Your task to perform on an android device: Open CNN.com Image 0: 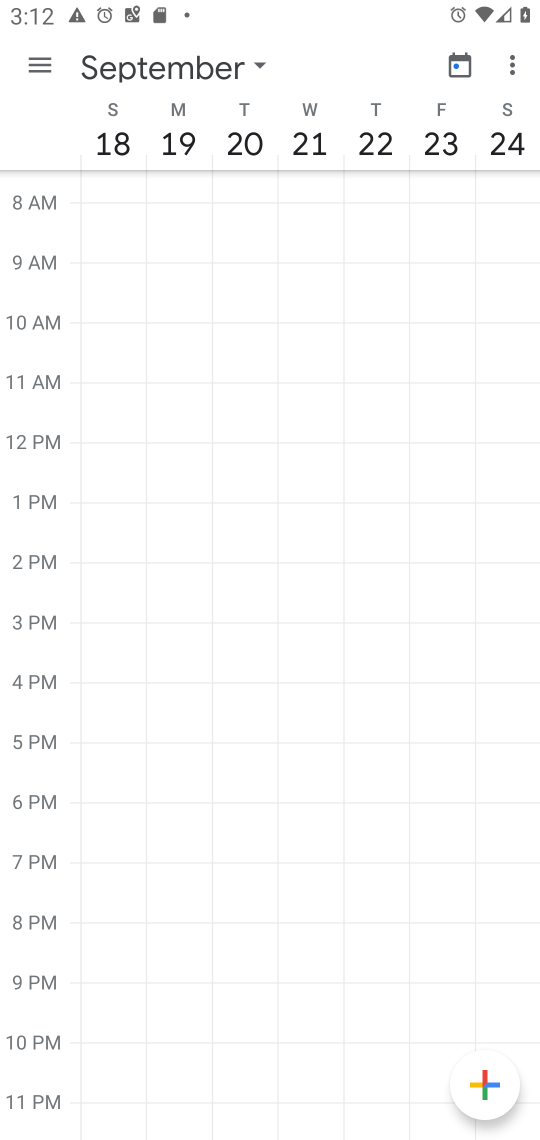
Step 0: press home button
Your task to perform on an android device: Open CNN.com Image 1: 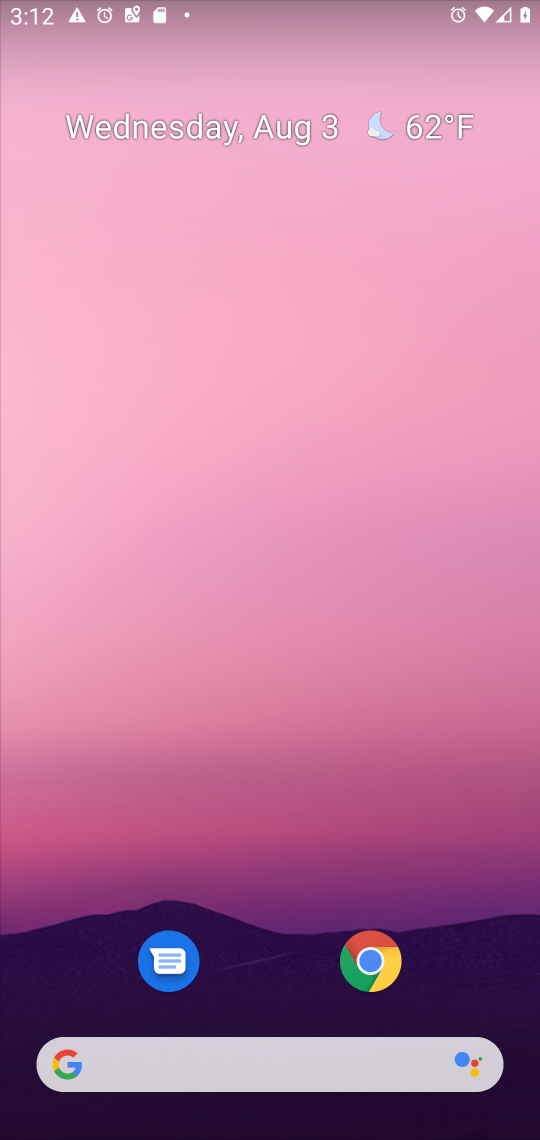
Step 1: click (379, 967)
Your task to perform on an android device: Open CNN.com Image 2: 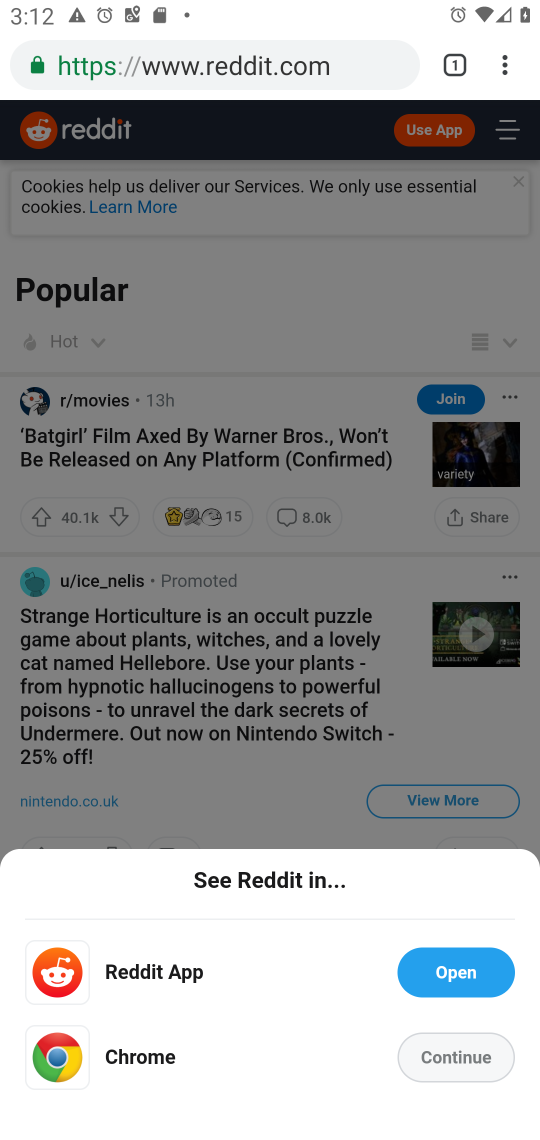
Step 2: click (312, 57)
Your task to perform on an android device: Open CNN.com Image 3: 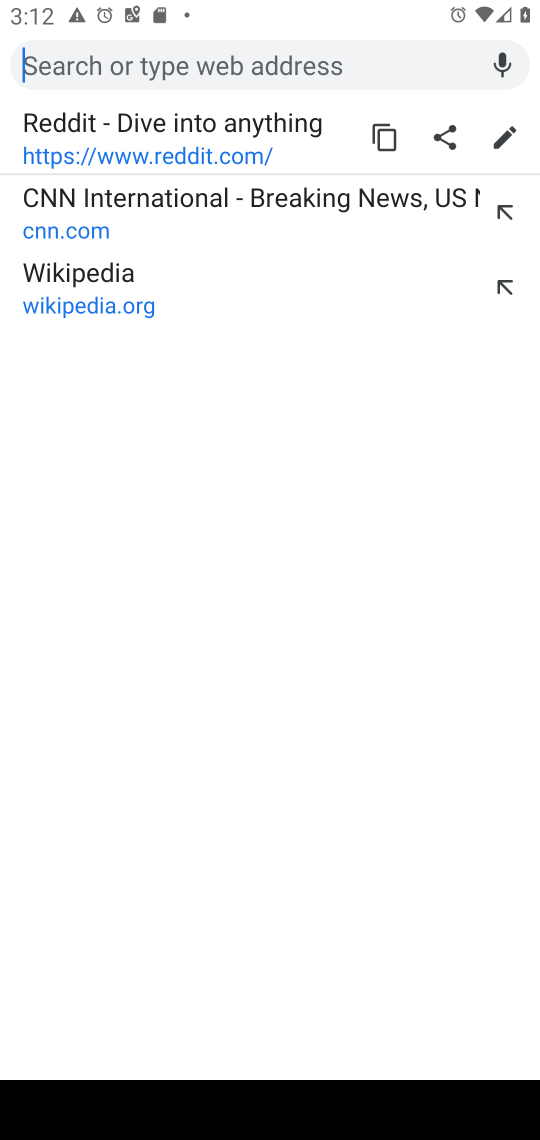
Step 3: click (143, 211)
Your task to perform on an android device: Open CNN.com Image 4: 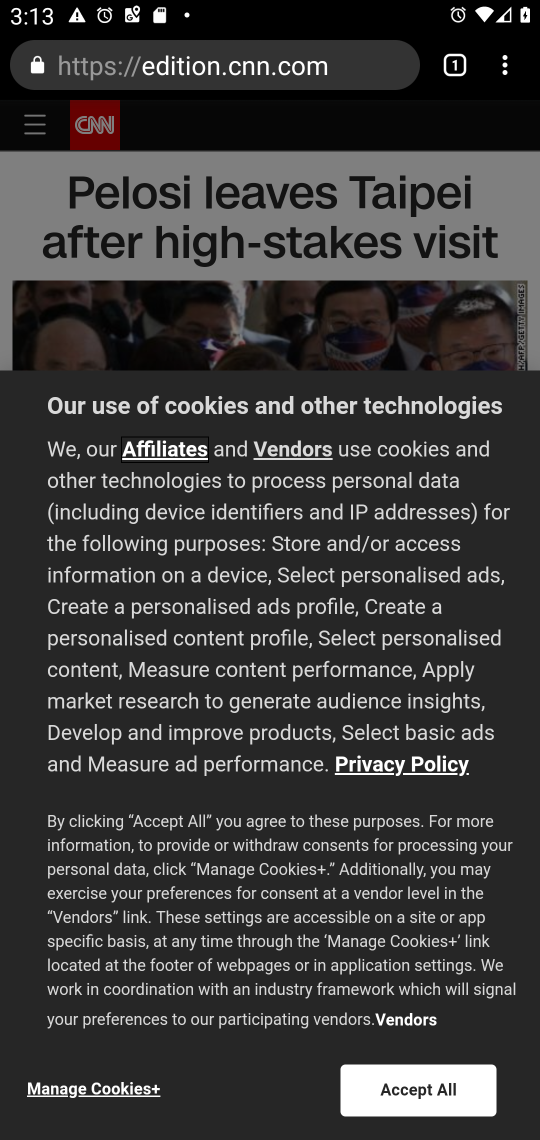
Step 4: task complete